Your task to perform on an android device: toggle pop-ups in chrome Image 0: 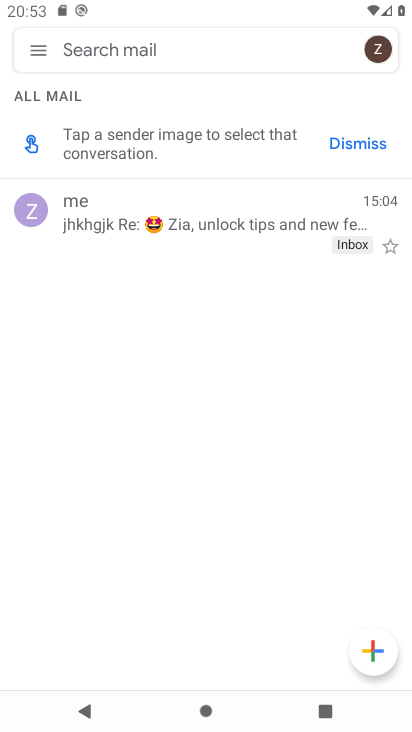
Step 0: press home button
Your task to perform on an android device: toggle pop-ups in chrome Image 1: 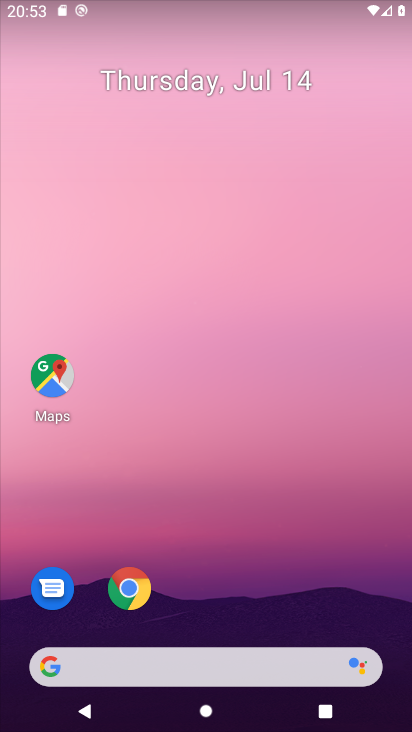
Step 1: drag from (343, 565) to (341, 35)
Your task to perform on an android device: toggle pop-ups in chrome Image 2: 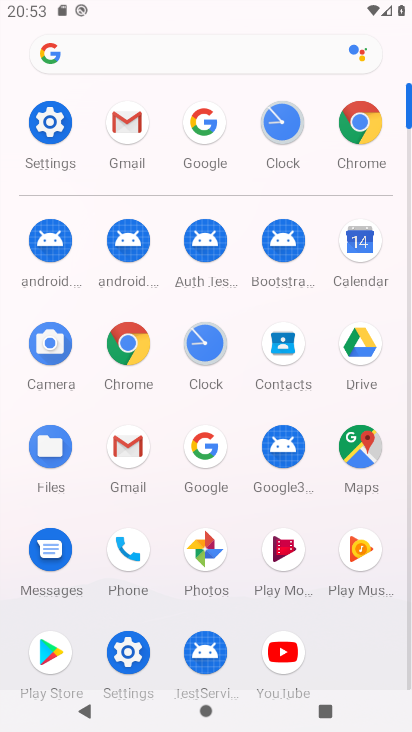
Step 2: click (355, 134)
Your task to perform on an android device: toggle pop-ups in chrome Image 3: 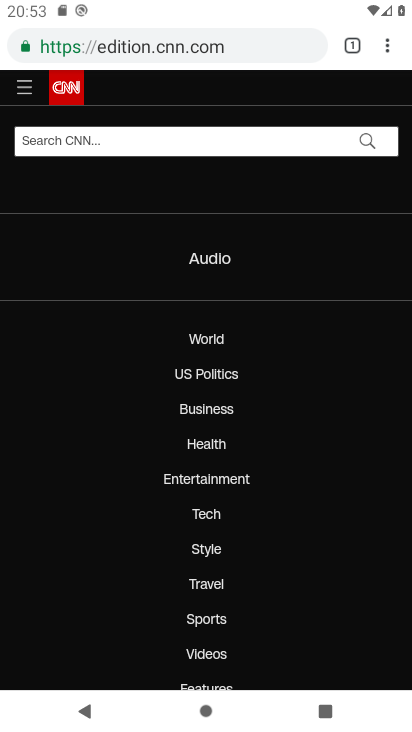
Step 3: click (394, 50)
Your task to perform on an android device: toggle pop-ups in chrome Image 4: 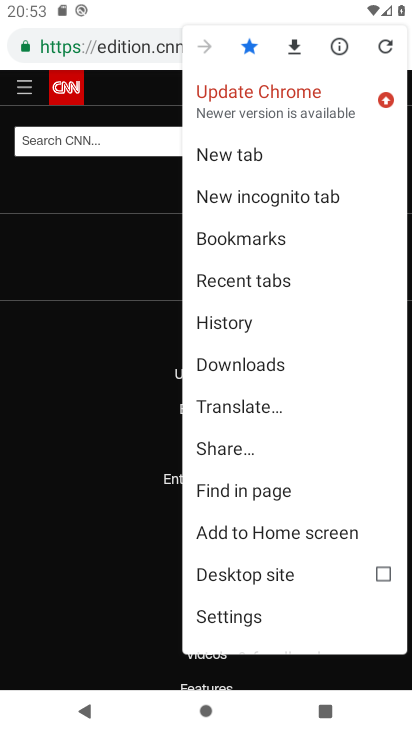
Step 4: click (260, 618)
Your task to perform on an android device: toggle pop-ups in chrome Image 5: 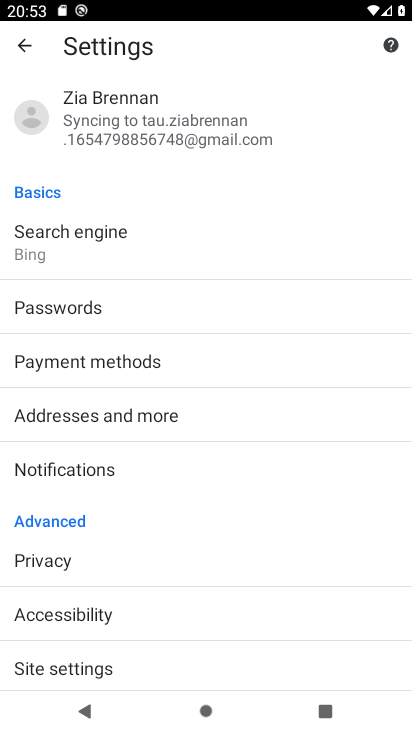
Step 5: drag from (306, 525) to (321, 427)
Your task to perform on an android device: toggle pop-ups in chrome Image 6: 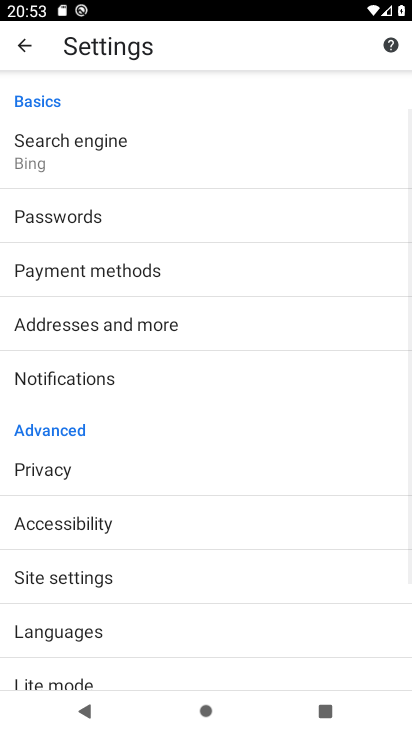
Step 6: drag from (335, 546) to (336, 281)
Your task to perform on an android device: toggle pop-ups in chrome Image 7: 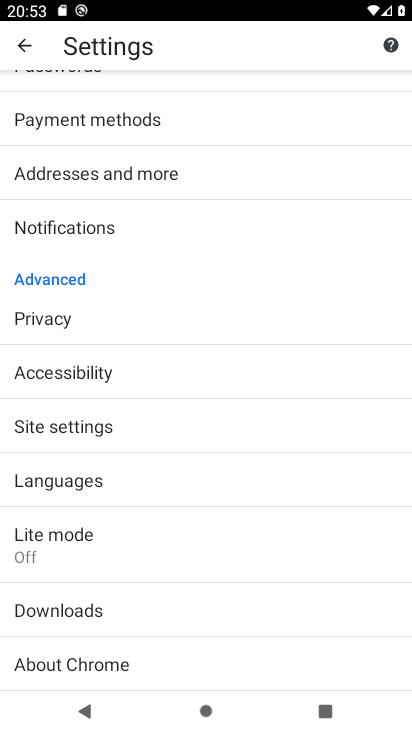
Step 7: click (283, 426)
Your task to perform on an android device: toggle pop-ups in chrome Image 8: 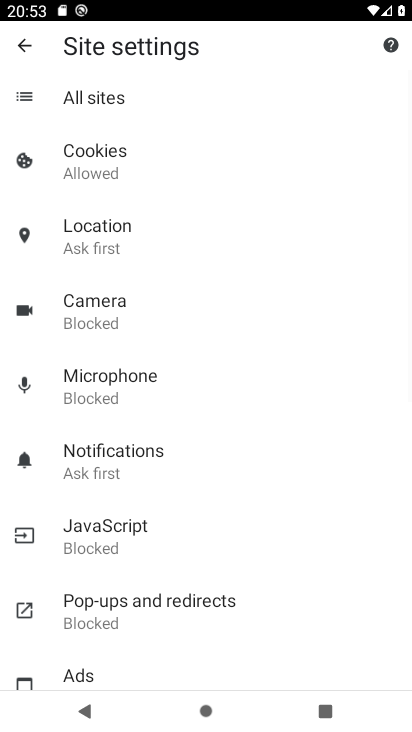
Step 8: drag from (348, 483) to (350, 407)
Your task to perform on an android device: toggle pop-ups in chrome Image 9: 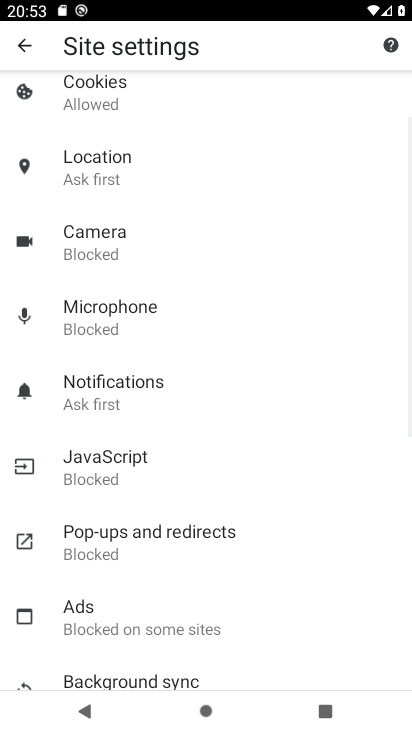
Step 9: drag from (346, 514) to (347, 257)
Your task to perform on an android device: toggle pop-ups in chrome Image 10: 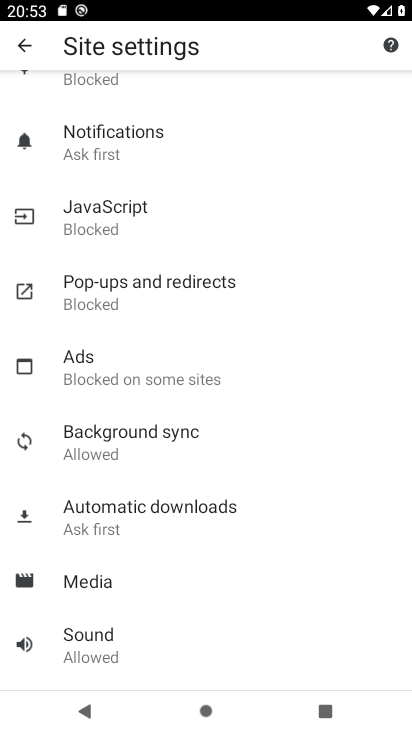
Step 10: drag from (346, 525) to (349, 385)
Your task to perform on an android device: toggle pop-ups in chrome Image 11: 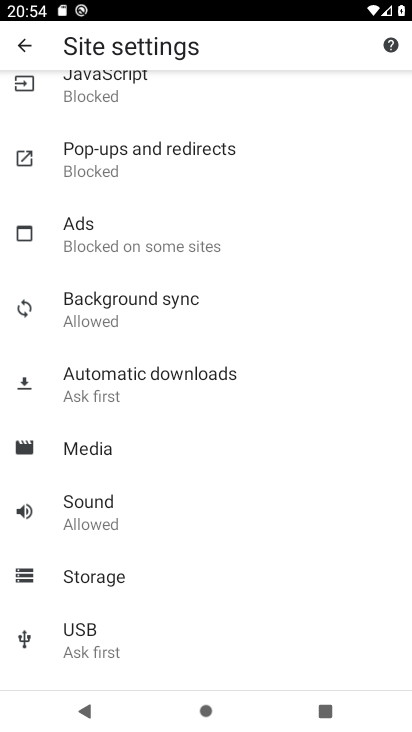
Step 11: drag from (342, 261) to (342, 370)
Your task to perform on an android device: toggle pop-ups in chrome Image 12: 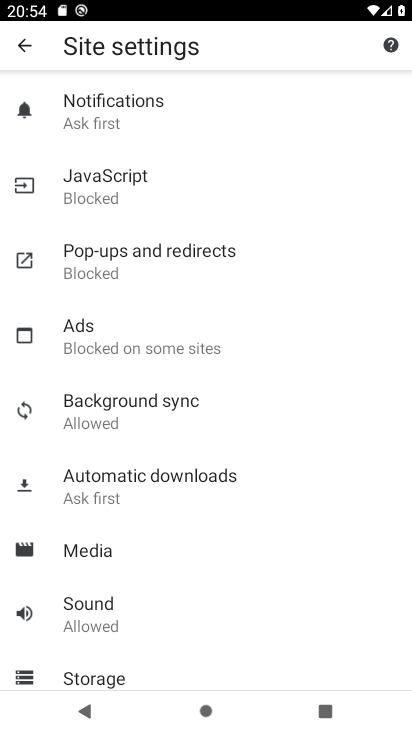
Step 12: drag from (353, 267) to (349, 377)
Your task to perform on an android device: toggle pop-ups in chrome Image 13: 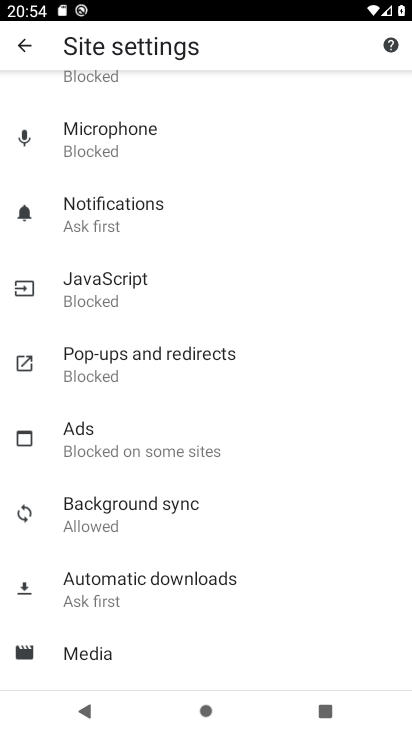
Step 13: click (248, 383)
Your task to perform on an android device: toggle pop-ups in chrome Image 14: 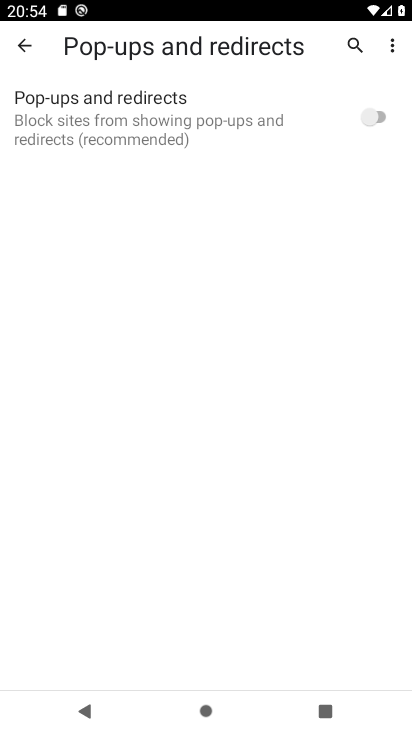
Step 14: click (380, 122)
Your task to perform on an android device: toggle pop-ups in chrome Image 15: 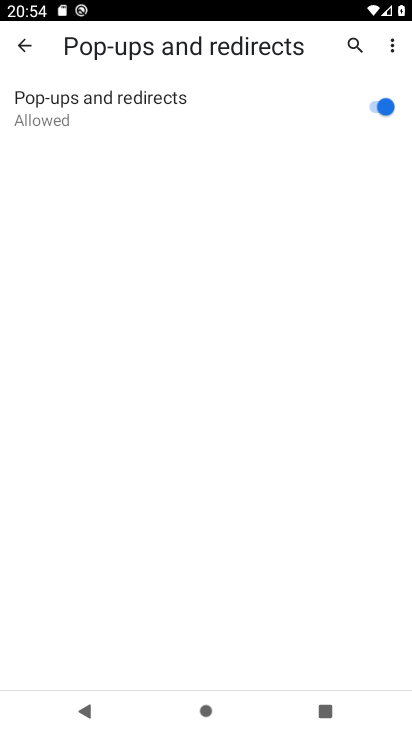
Step 15: task complete